Your task to perform on an android device: turn on sleep mode Image 0: 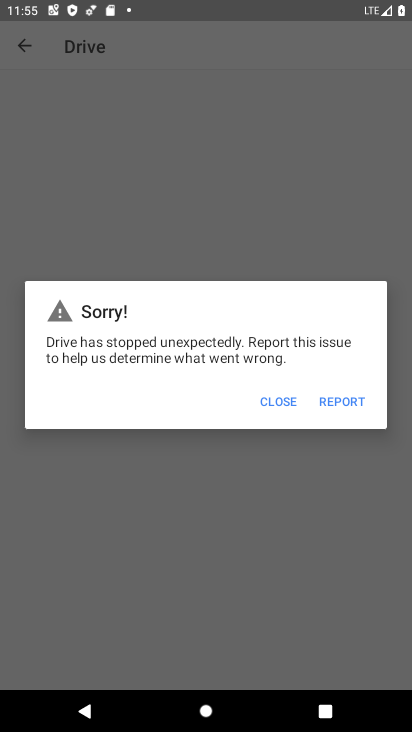
Step 0: press home button
Your task to perform on an android device: turn on sleep mode Image 1: 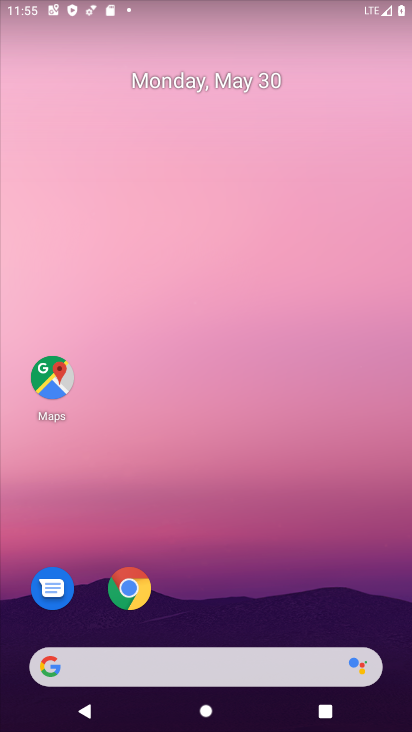
Step 1: drag from (219, 607) to (270, 118)
Your task to perform on an android device: turn on sleep mode Image 2: 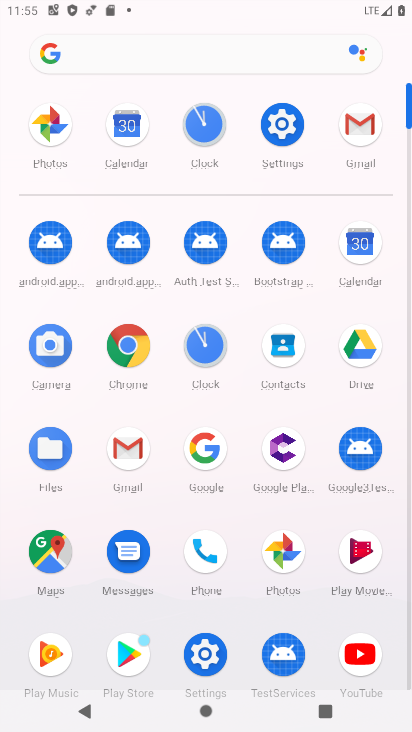
Step 2: click (280, 123)
Your task to perform on an android device: turn on sleep mode Image 3: 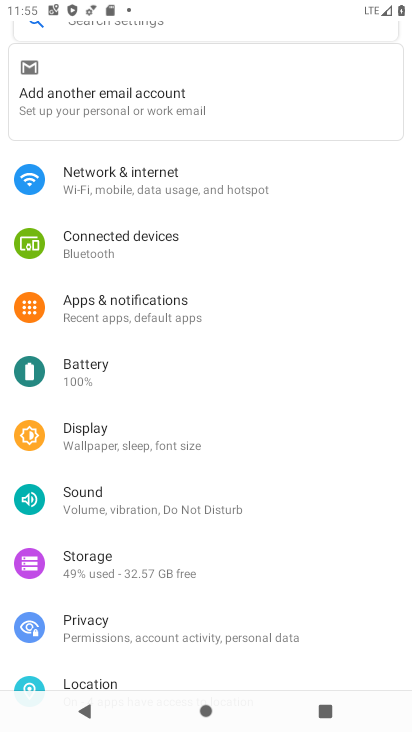
Step 3: click (118, 431)
Your task to perform on an android device: turn on sleep mode Image 4: 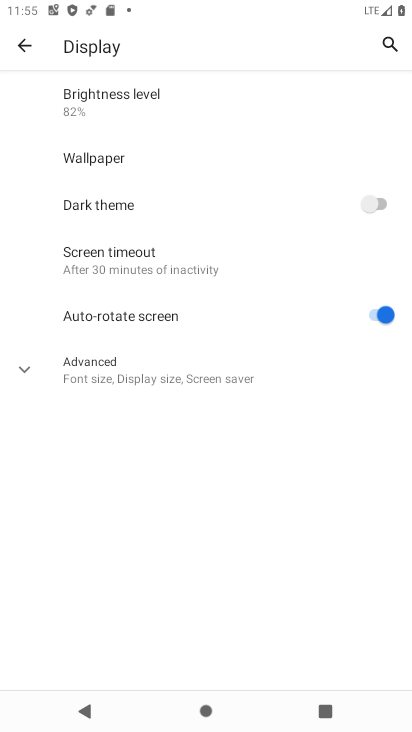
Step 4: click (22, 356)
Your task to perform on an android device: turn on sleep mode Image 5: 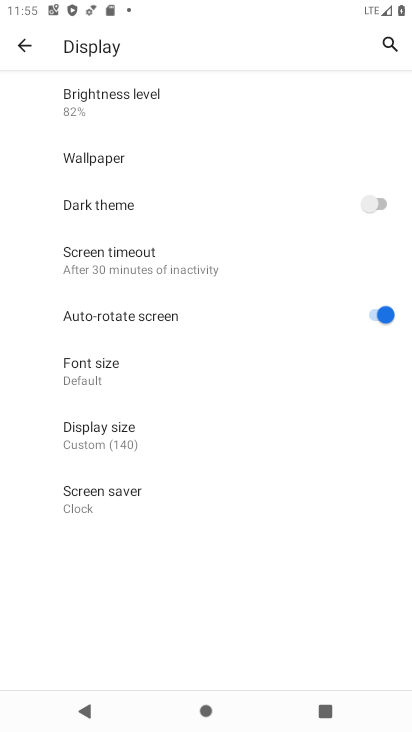
Step 5: task complete